Your task to perform on an android device: Go to Android settings Image 0: 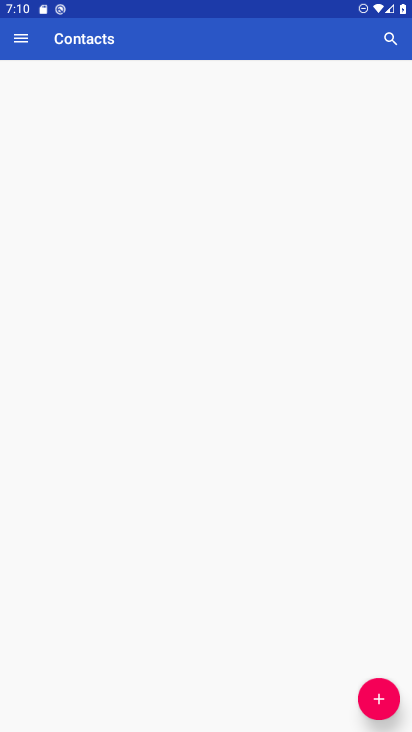
Step 0: click (58, 417)
Your task to perform on an android device: Go to Android settings Image 1: 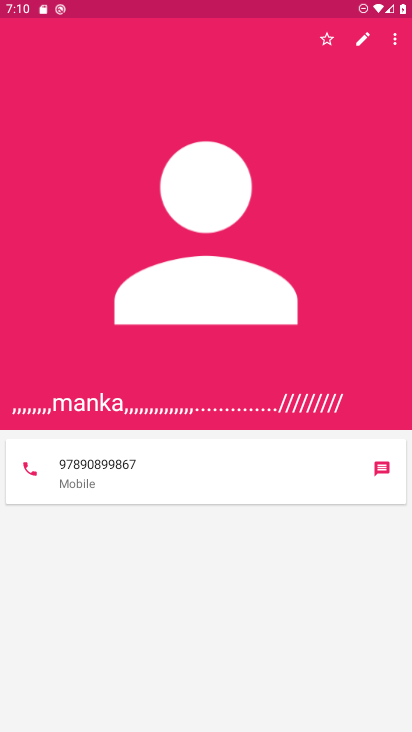
Step 1: press home button
Your task to perform on an android device: Go to Android settings Image 2: 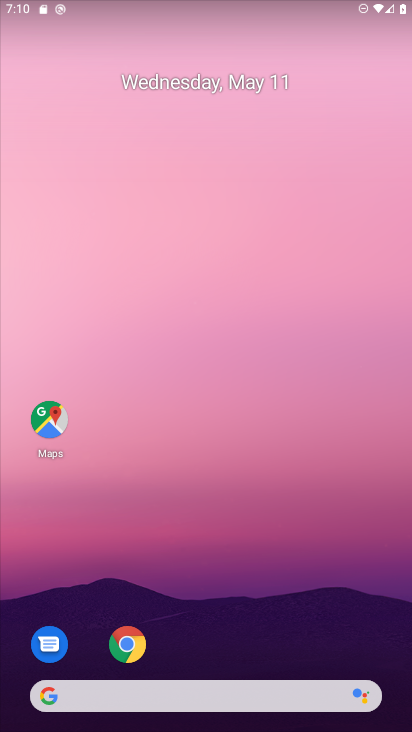
Step 2: drag from (230, 556) to (139, 3)
Your task to perform on an android device: Go to Android settings Image 3: 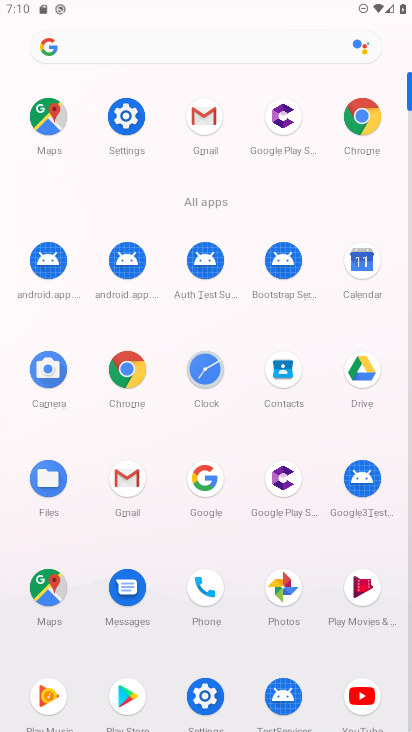
Step 3: click (129, 117)
Your task to perform on an android device: Go to Android settings Image 4: 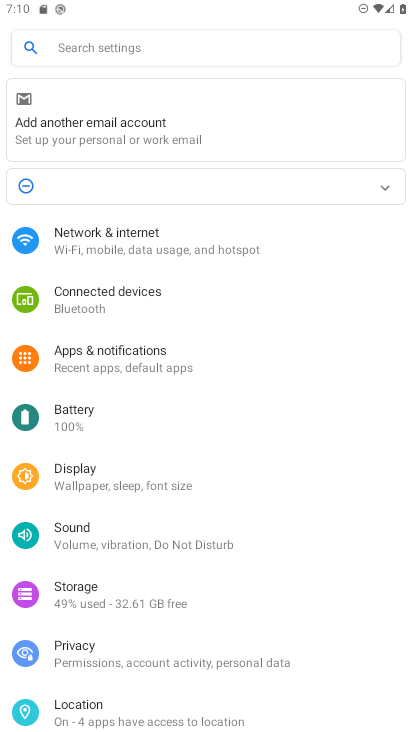
Step 4: task complete